Your task to perform on an android device: find which apps use the phone's location Image 0: 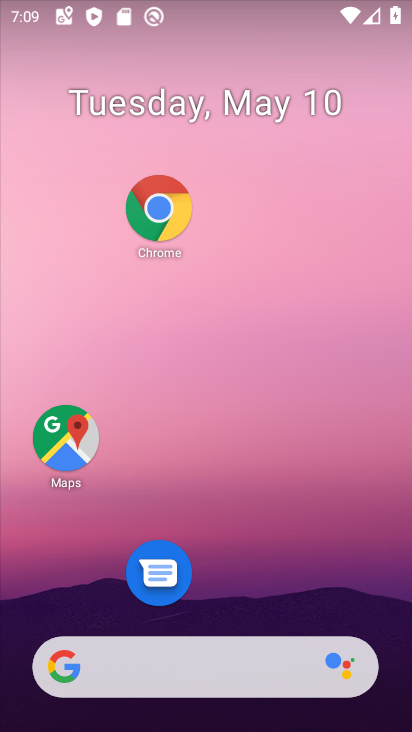
Step 0: drag from (239, 705) to (186, 367)
Your task to perform on an android device: find which apps use the phone's location Image 1: 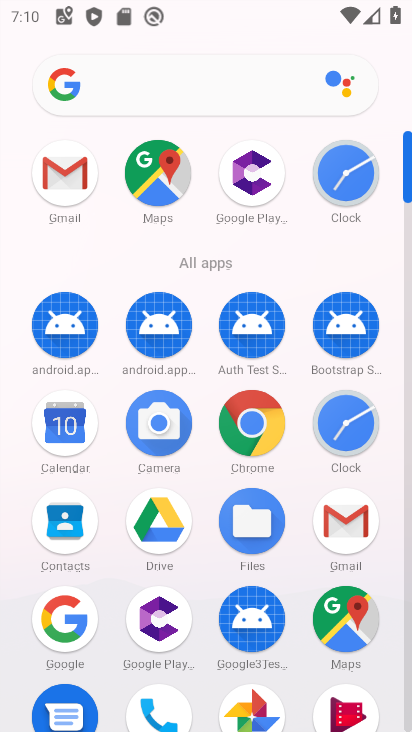
Step 1: drag from (208, 473) to (184, 274)
Your task to perform on an android device: find which apps use the phone's location Image 2: 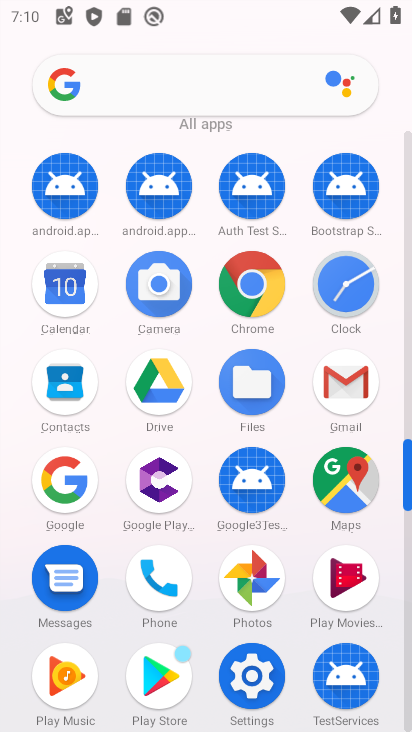
Step 2: click (272, 667)
Your task to perform on an android device: find which apps use the phone's location Image 3: 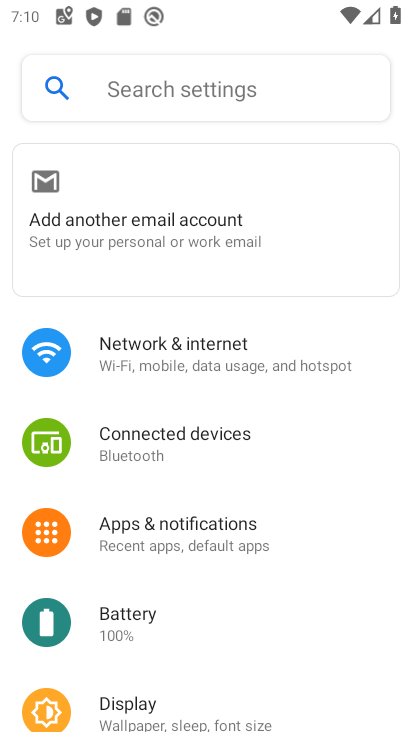
Step 3: click (160, 94)
Your task to perform on an android device: find which apps use the phone's location Image 4: 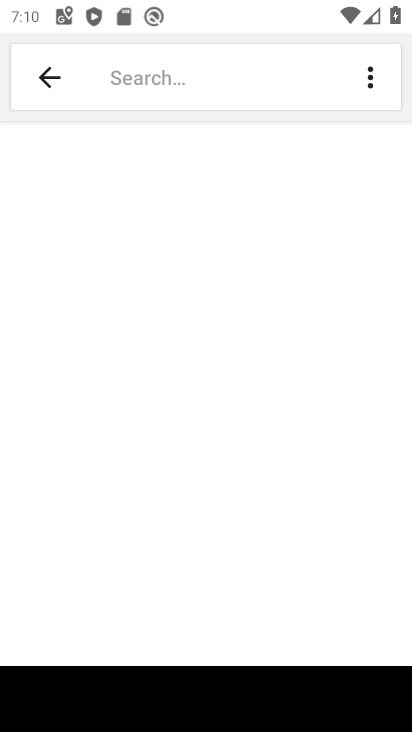
Step 4: drag from (347, 685) to (351, 586)
Your task to perform on an android device: find which apps use the phone's location Image 5: 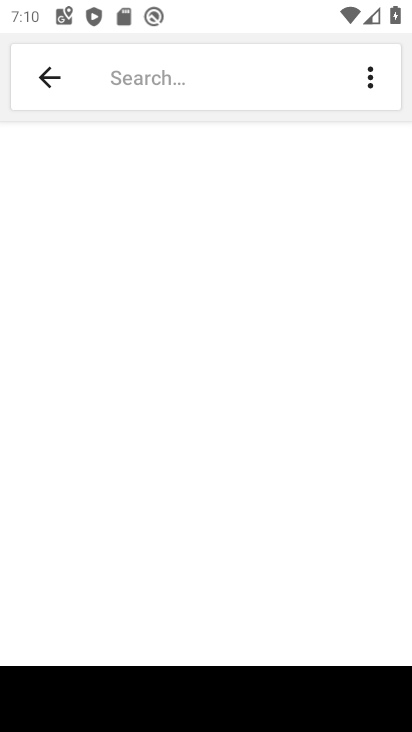
Step 5: drag from (390, 707) to (386, 668)
Your task to perform on an android device: find which apps use the phone's location Image 6: 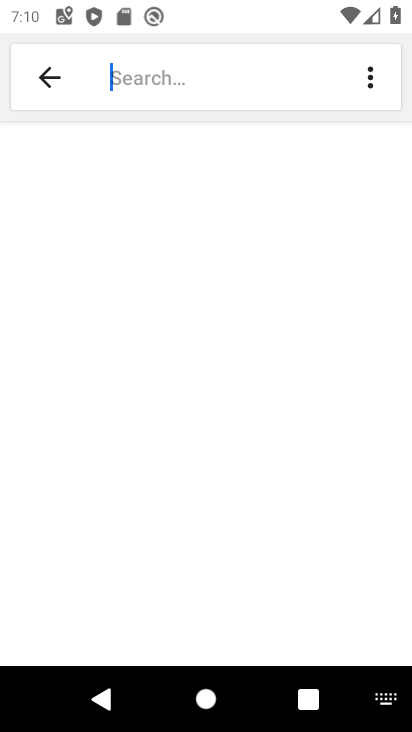
Step 6: click (384, 701)
Your task to perform on an android device: find which apps use the phone's location Image 7: 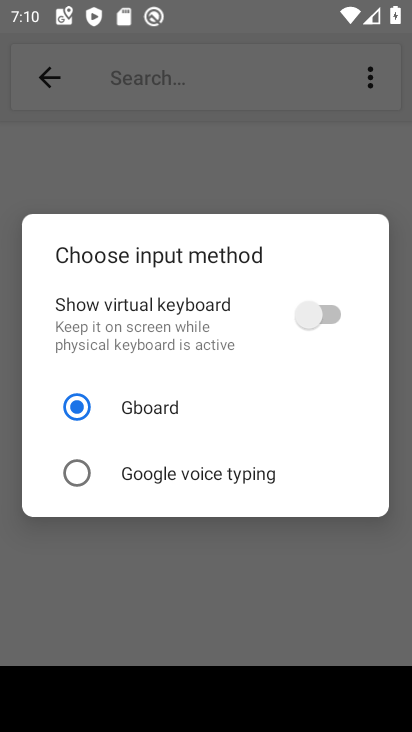
Step 7: click (327, 309)
Your task to perform on an android device: find which apps use the phone's location Image 8: 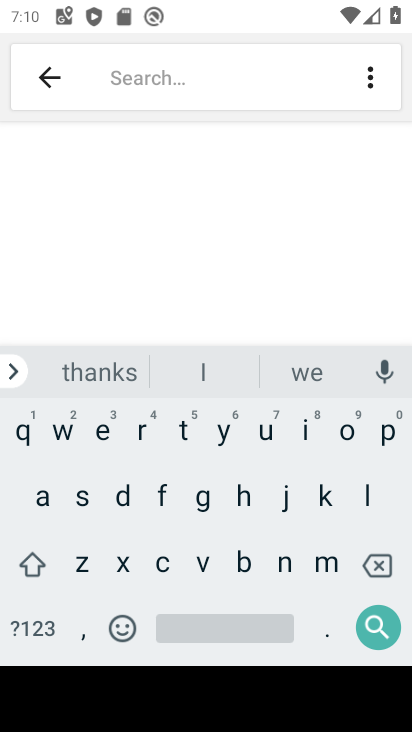
Step 8: click (365, 502)
Your task to perform on an android device: find which apps use the phone's location Image 9: 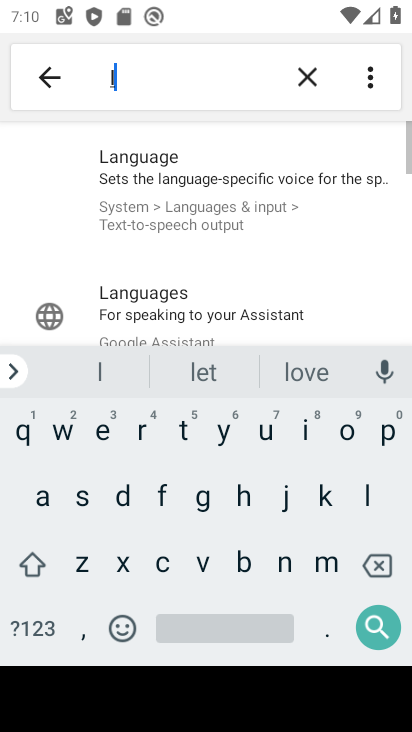
Step 9: click (345, 432)
Your task to perform on an android device: find which apps use the phone's location Image 10: 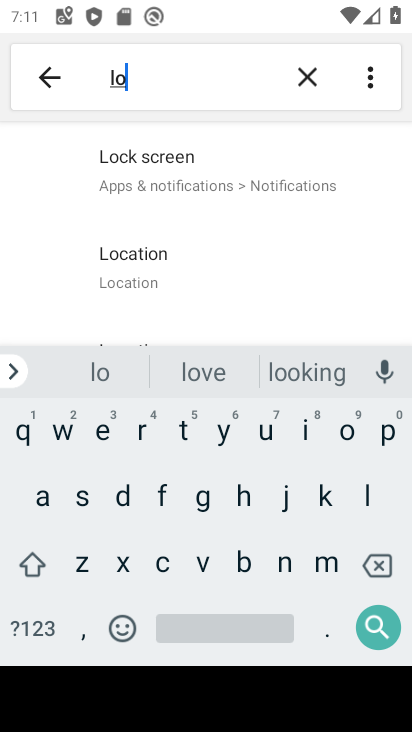
Step 10: click (122, 259)
Your task to perform on an android device: find which apps use the phone's location Image 11: 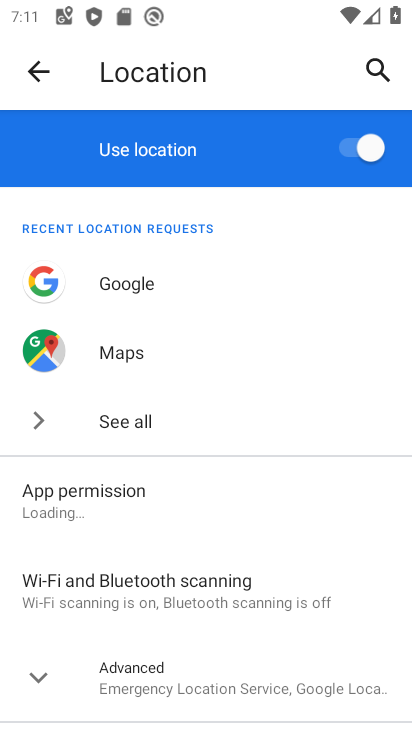
Step 11: task complete